Your task to perform on an android device: Show me popular videos on Youtube Image 0: 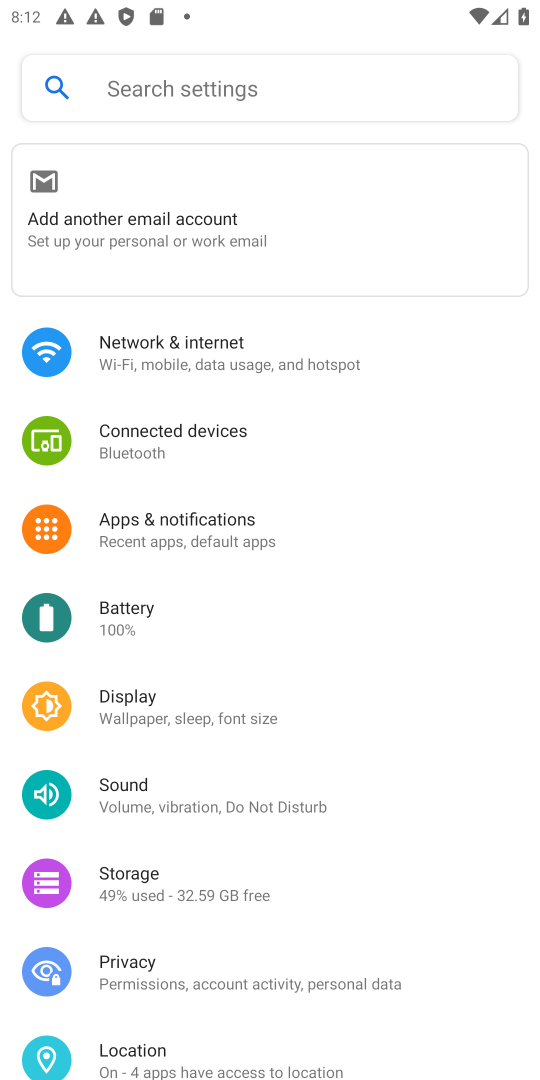
Step 0: drag from (446, 1014) to (399, 729)
Your task to perform on an android device: Show me popular videos on Youtube Image 1: 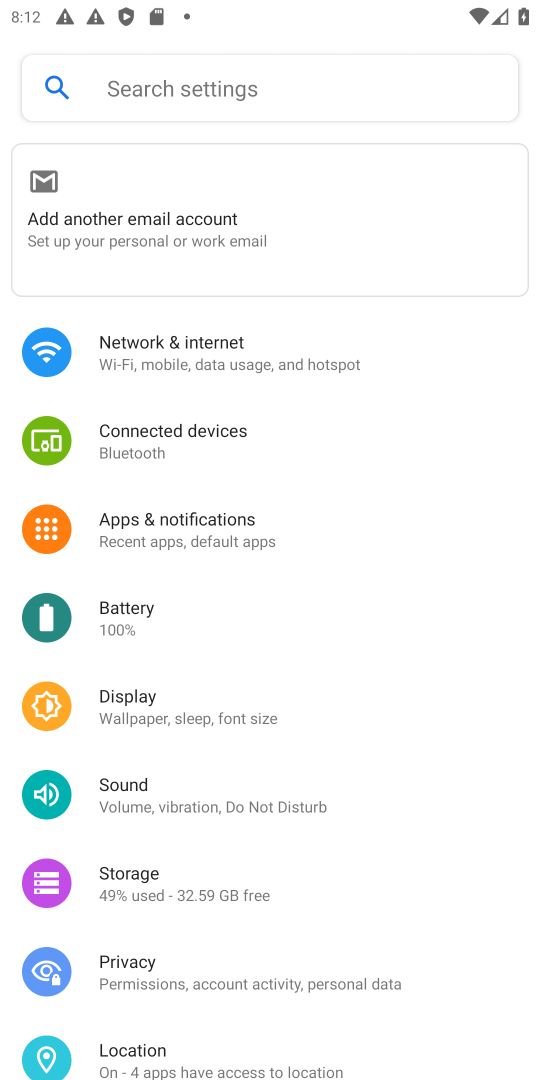
Step 1: press home button
Your task to perform on an android device: Show me popular videos on Youtube Image 2: 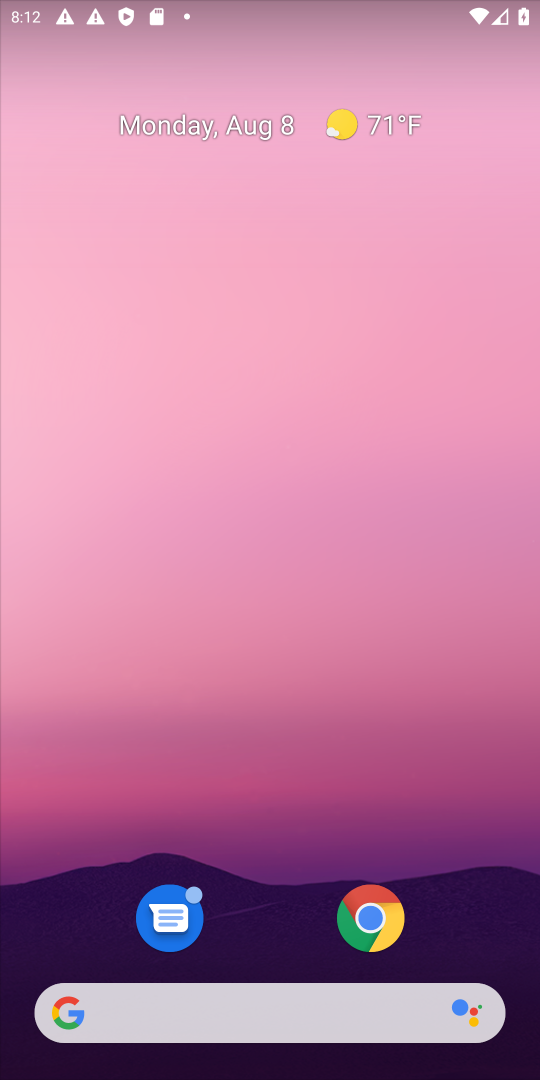
Step 2: drag from (508, 1045) to (274, 21)
Your task to perform on an android device: Show me popular videos on Youtube Image 3: 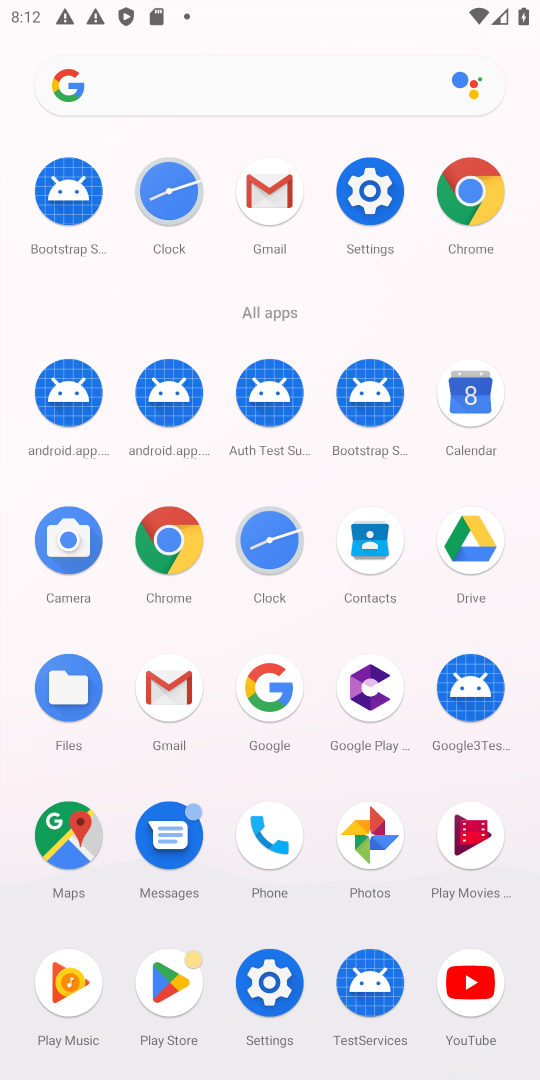
Step 3: click (455, 994)
Your task to perform on an android device: Show me popular videos on Youtube Image 4: 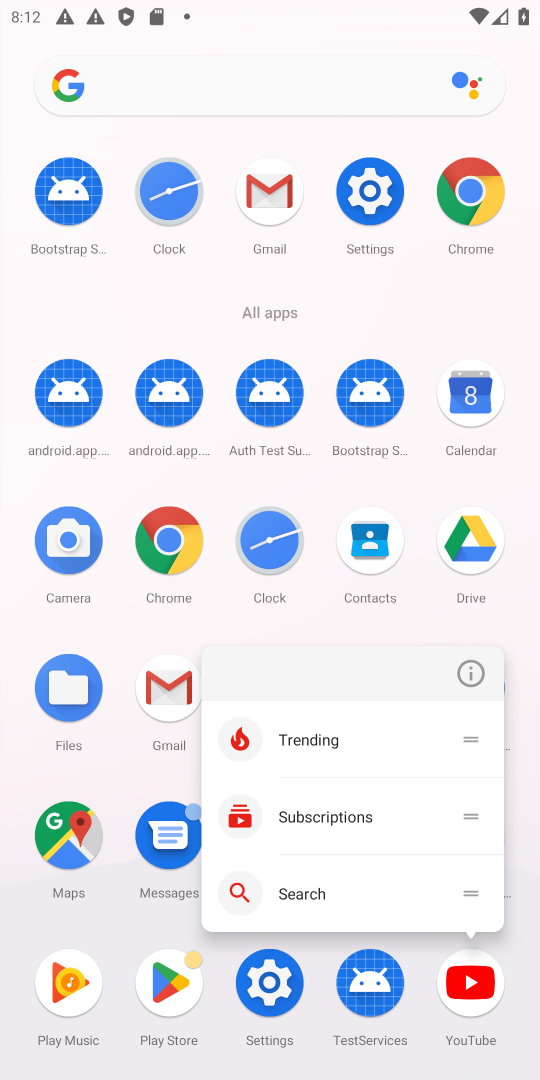
Step 4: click (448, 983)
Your task to perform on an android device: Show me popular videos on Youtube Image 5: 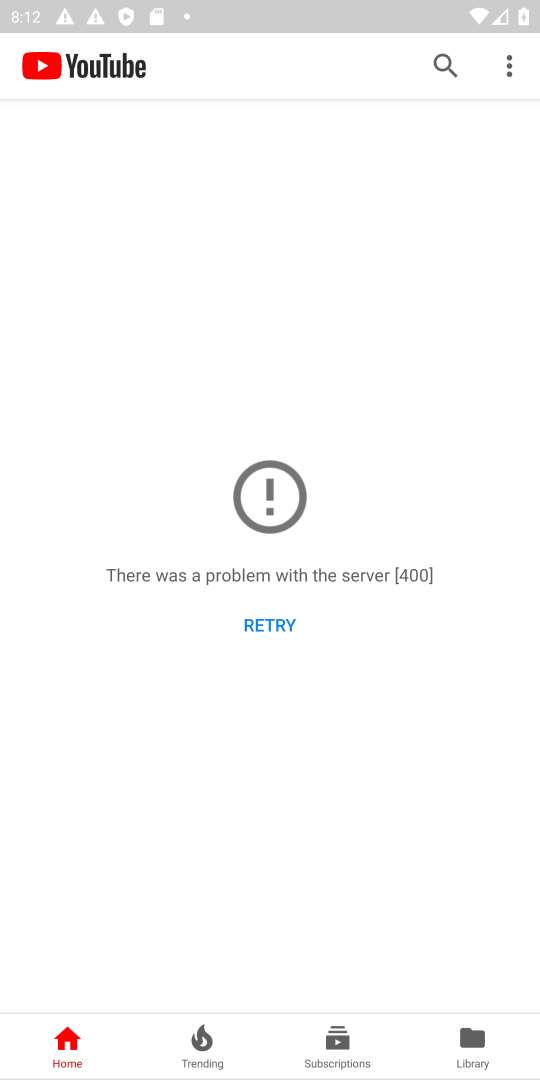
Step 5: task complete